Your task to perform on an android device: Open ESPN.com Image 0: 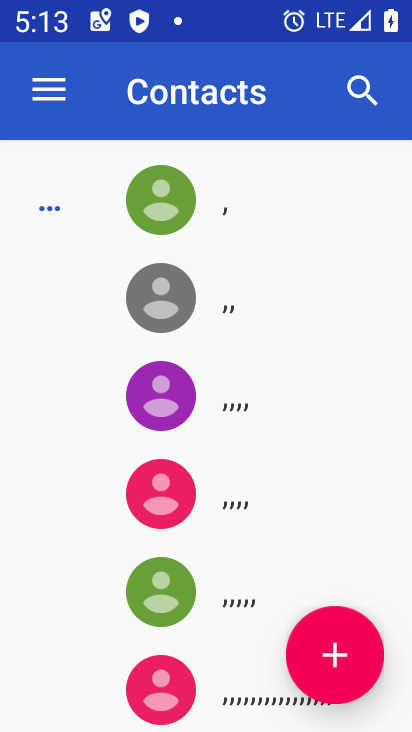
Step 0: press home button
Your task to perform on an android device: Open ESPN.com Image 1: 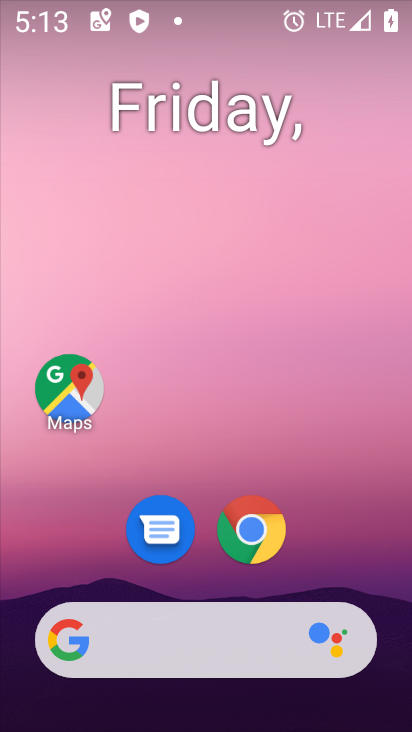
Step 1: click (258, 543)
Your task to perform on an android device: Open ESPN.com Image 2: 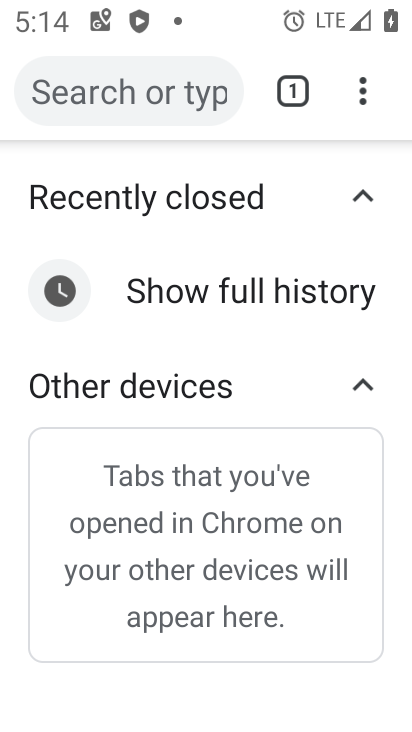
Step 2: click (286, 96)
Your task to perform on an android device: Open ESPN.com Image 3: 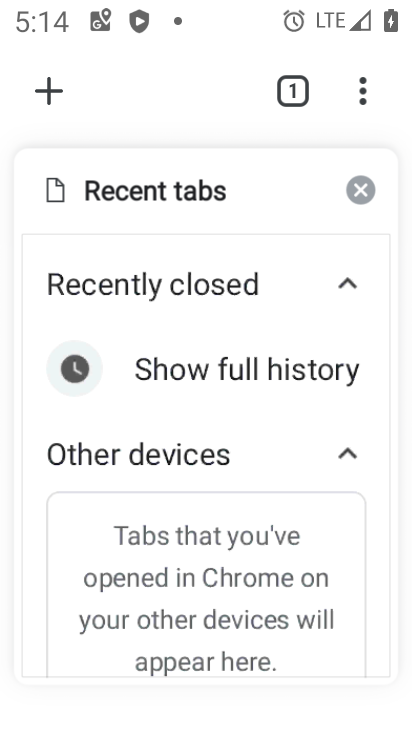
Step 3: click (42, 87)
Your task to perform on an android device: Open ESPN.com Image 4: 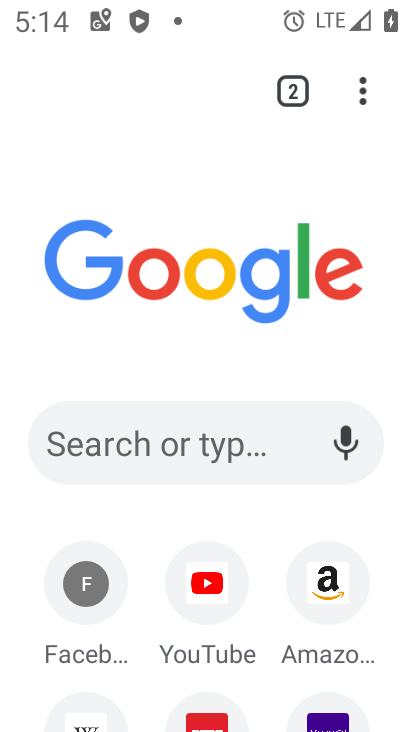
Step 4: drag from (266, 544) to (216, 212)
Your task to perform on an android device: Open ESPN.com Image 5: 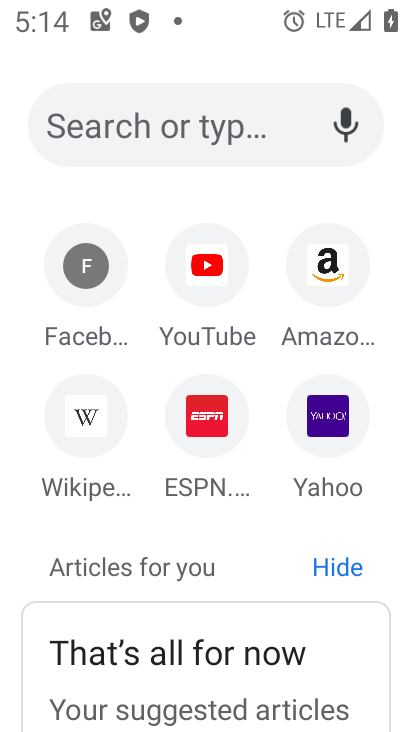
Step 5: click (205, 420)
Your task to perform on an android device: Open ESPN.com Image 6: 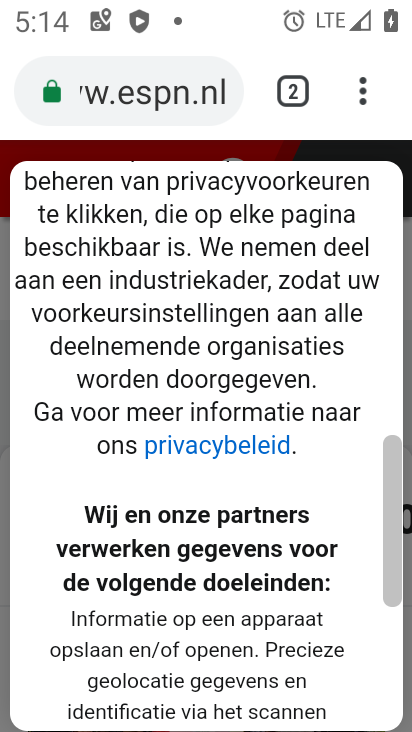
Step 6: task complete